Your task to perform on an android device: find photos in the google photos app Image 0: 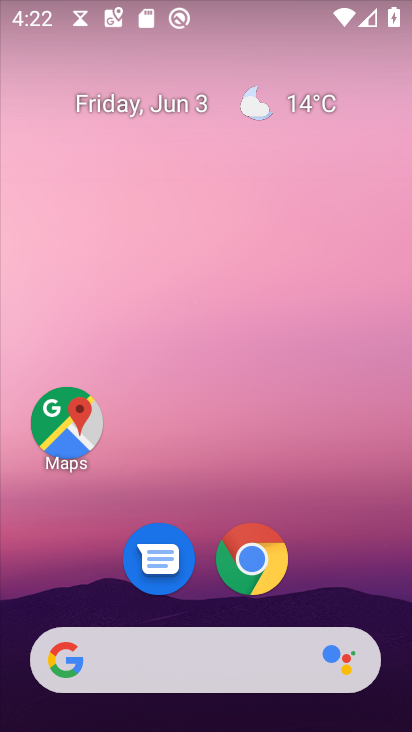
Step 0: drag from (254, 700) to (160, 11)
Your task to perform on an android device: find photos in the google photos app Image 1: 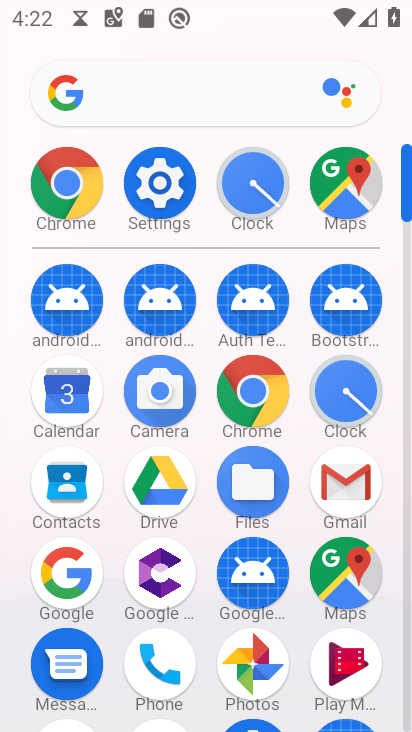
Step 1: drag from (201, 514) to (187, 68)
Your task to perform on an android device: find photos in the google photos app Image 2: 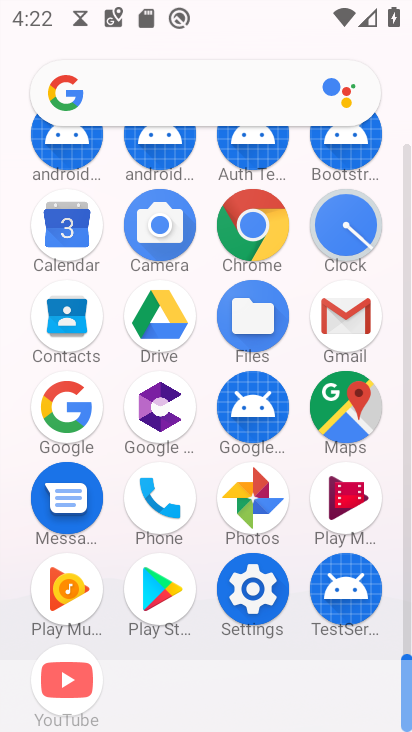
Step 2: click (192, 70)
Your task to perform on an android device: find photos in the google photos app Image 3: 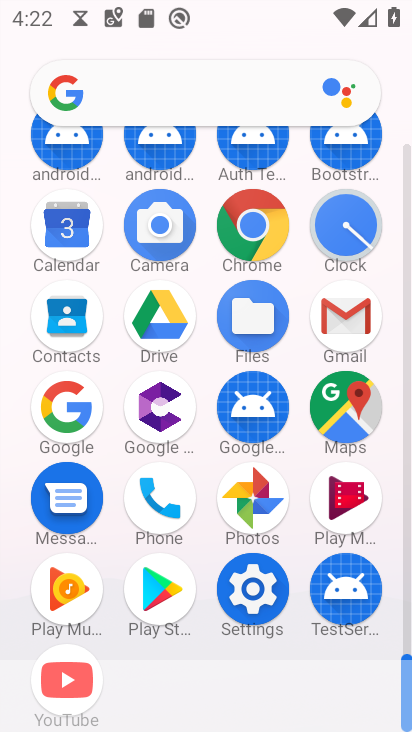
Step 3: drag from (225, 375) to (246, 247)
Your task to perform on an android device: find photos in the google photos app Image 4: 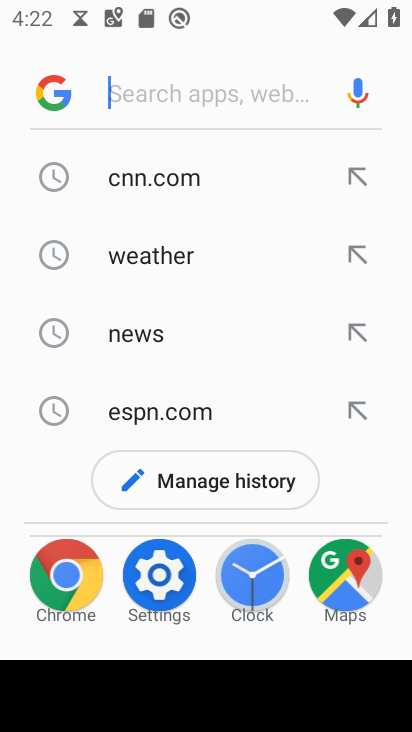
Step 4: drag from (229, 333) to (190, 221)
Your task to perform on an android device: find photos in the google photos app Image 5: 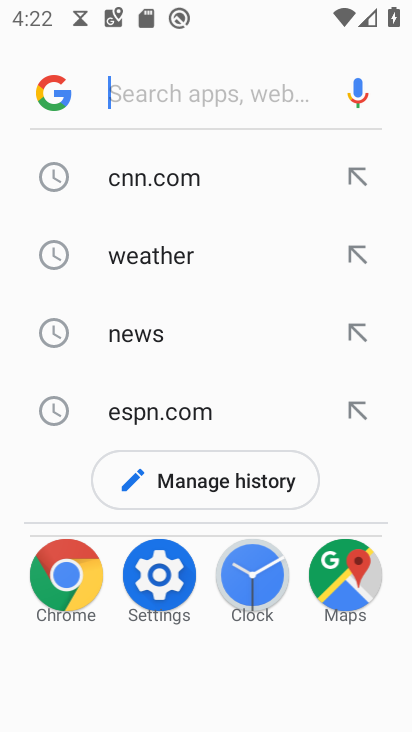
Step 5: press back button
Your task to perform on an android device: find photos in the google photos app Image 6: 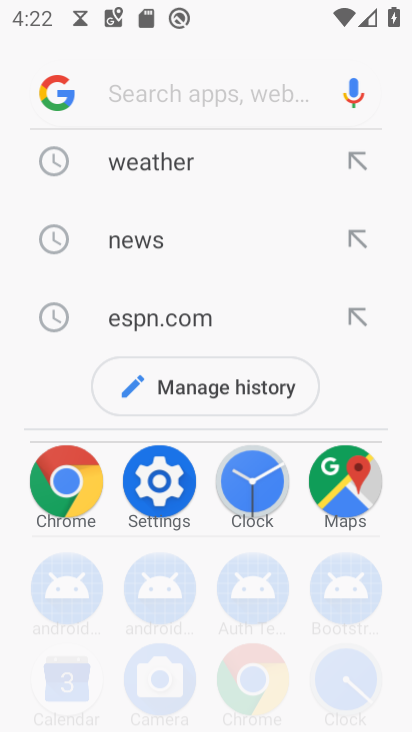
Step 6: press back button
Your task to perform on an android device: find photos in the google photos app Image 7: 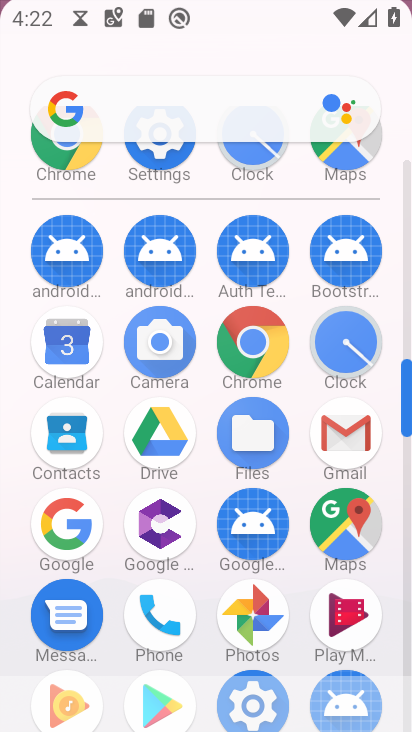
Step 7: press back button
Your task to perform on an android device: find photos in the google photos app Image 8: 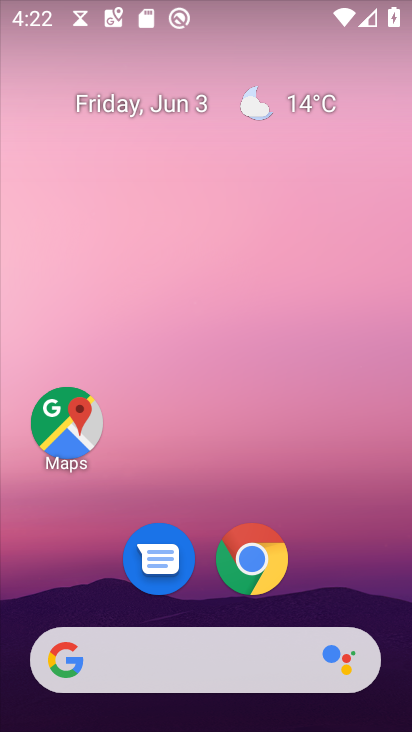
Step 8: drag from (206, 612) to (227, 26)
Your task to perform on an android device: find photos in the google photos app Image 9: 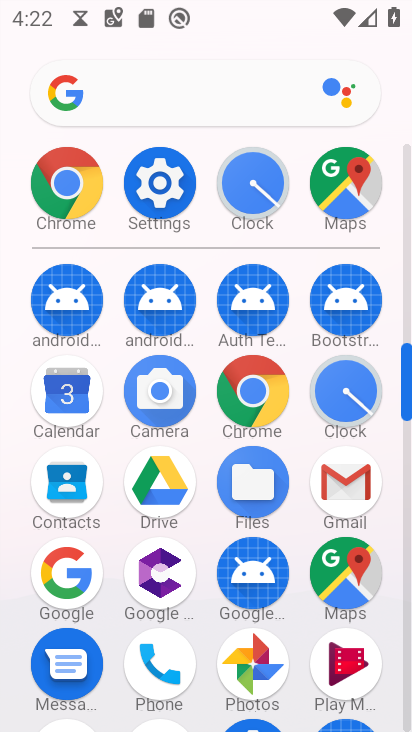
Step 9: click (247, 661)
Your task to perform on an android device: find photos in the google photos app Image 10: 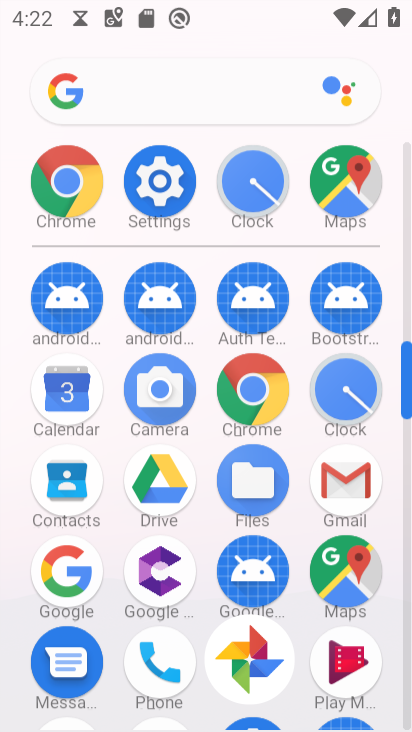
Step 10: click (246, 661)
Your task to perform on an android device: find photos in the google photos app Image 11: 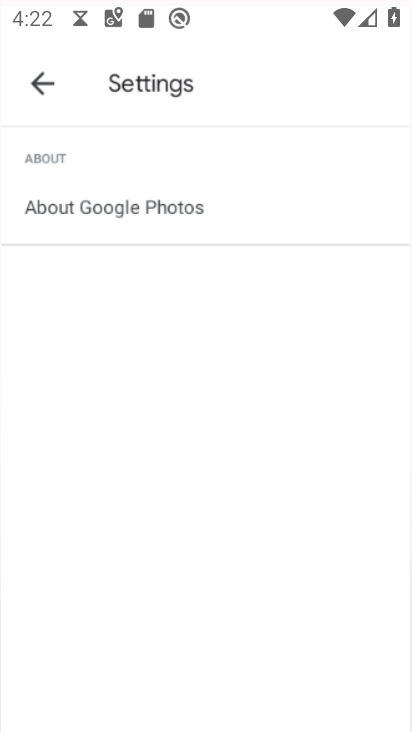
Step 11: click (240, 663)
Your task to perform on an android device: find photos in the google photos app Image 12: 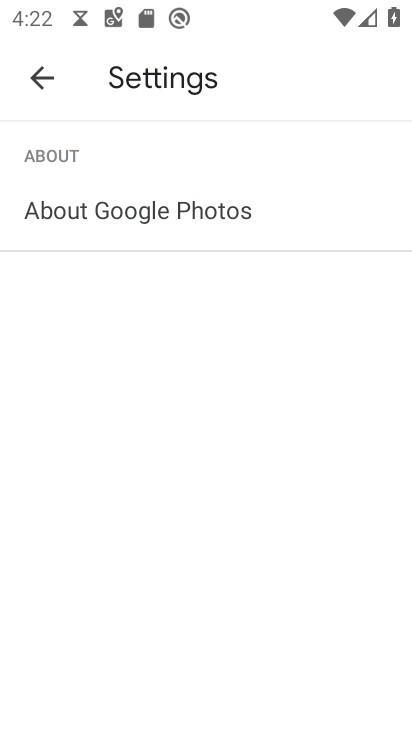
Step 12: click (236, 658)
Your task to perform on an android device: find photos in the google photos app Image 13: 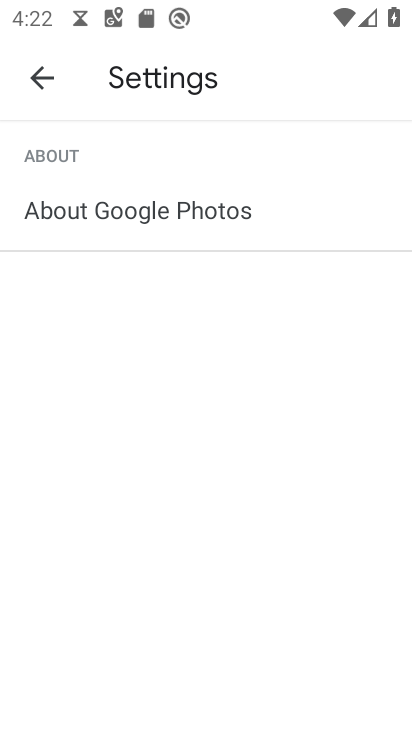
Step 13: drag from (149, 484) to (125, 45)
Your task to perform on an android device: find photos in the google photos app Image 14: 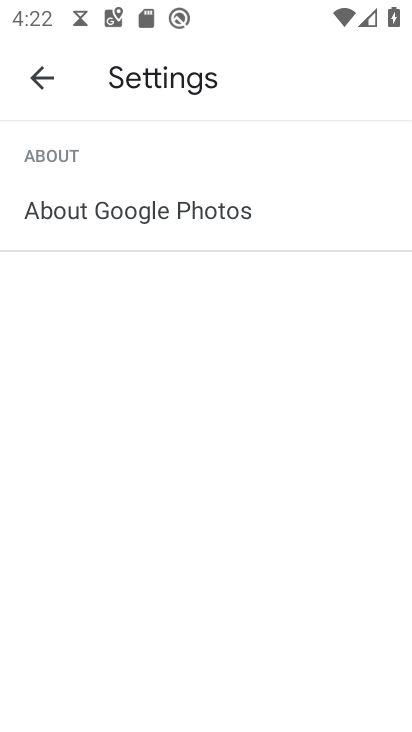
Step 14: drag from (166, 478) to (144, 87)
Your task to perform on an android device: find photos in the google photos app Image 15: 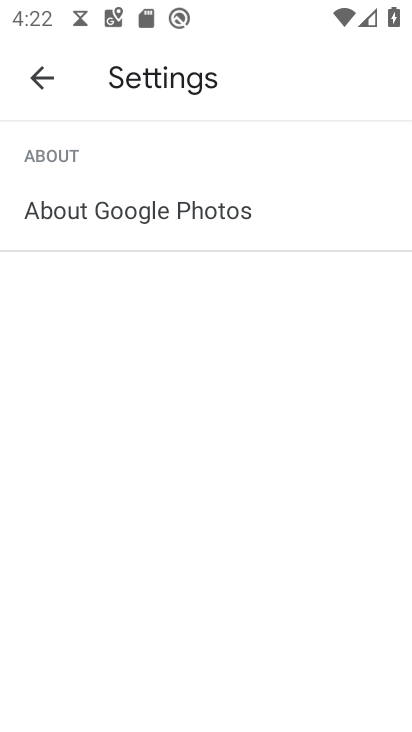
Step 15: drag from (165, 473) to (87, 199)
Your task to perform on an android device: find photos in the google photos app Image 16: 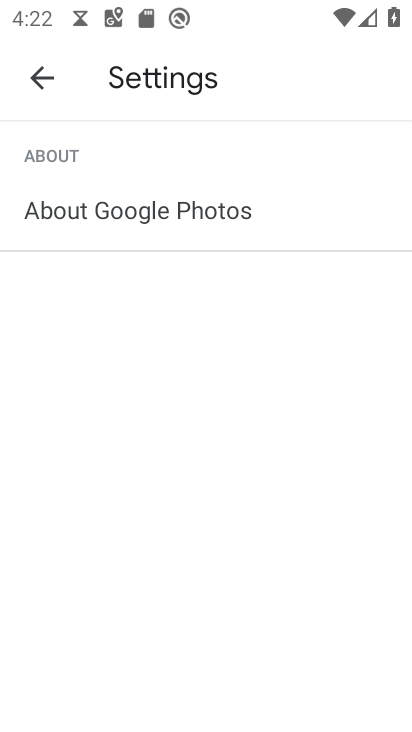
Step 16: click (34, 72)
Your task to perform on an android device: find photos in the google photos app Image 17: 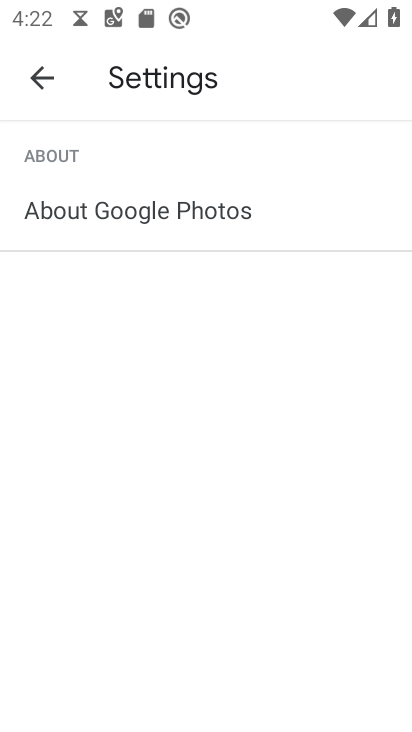
Step 17: click (34, 72)
Your task to perform on an android device: find photos in the google photos app Image 18: 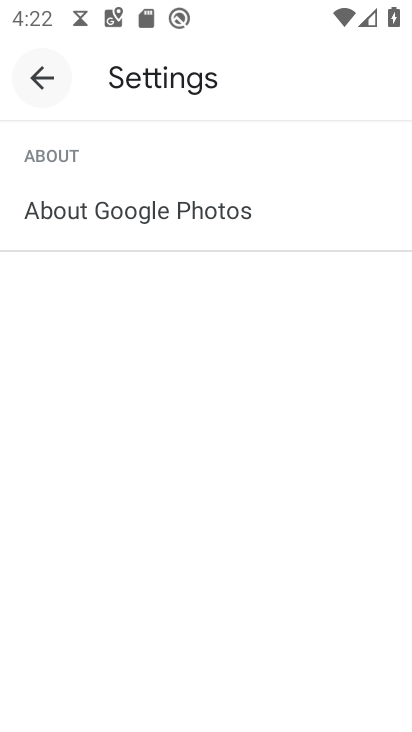
Step 18: click (34, 72)
Your task to perform on an android device: find photos in the google photos app Image 19: 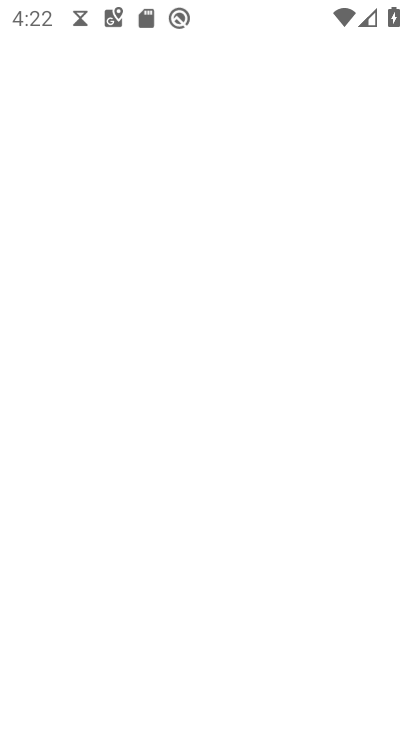
Step 19: click (34, 72)
Your task to perform on an android device: find photos in the google photos app Image 20: 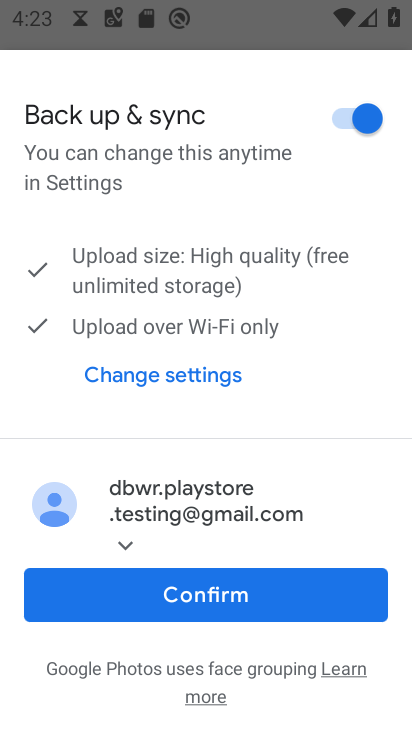
Step 20: click (188, 599)
Your task to perform on an android device: find photos in the google photos app Image 21: 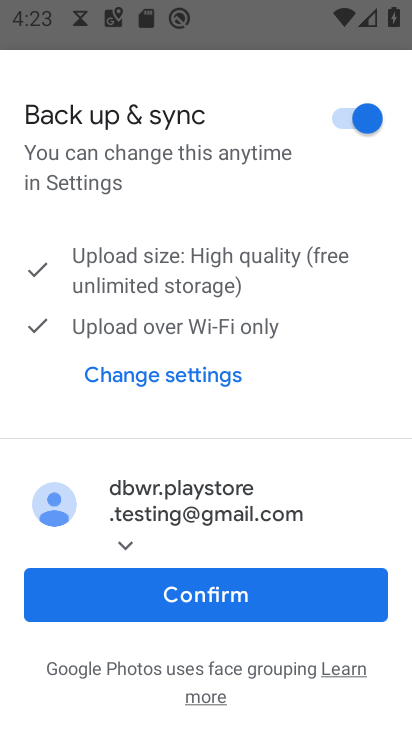
Step 21: click (188, 600)
Your task to perform on an android device: find photos in the google photos app Image 22: 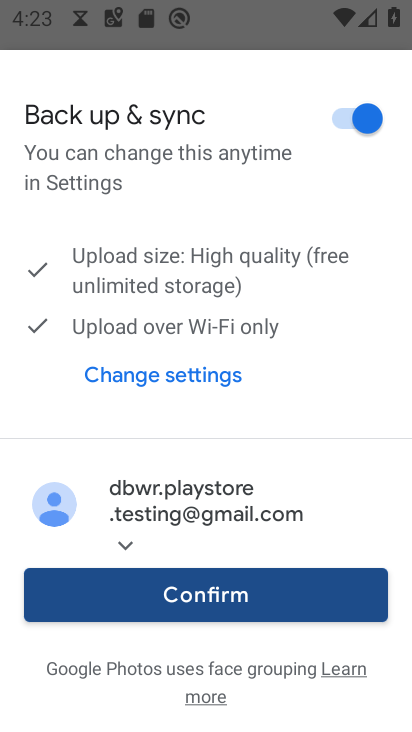
Step 22: click (188, 602)
Your task to perform on an android device: find photos in the google photos app Image 23: 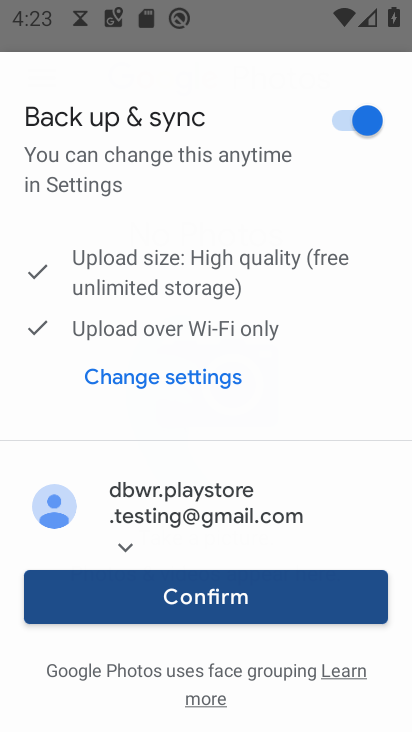
Step 23: click (188, 602)
Your task to perform on an android device: find photos in the google photos app Image 24: 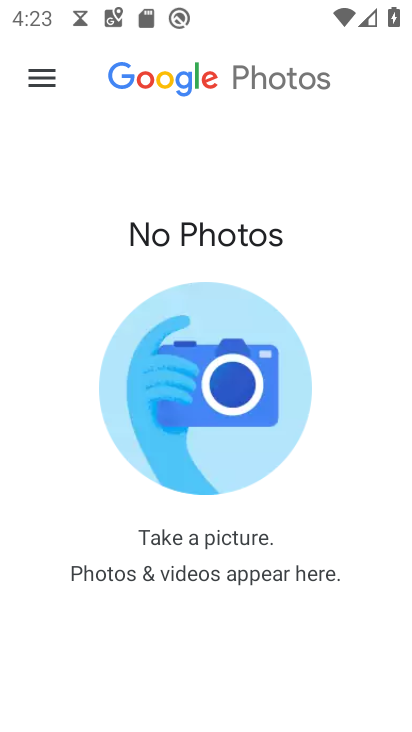
Step 24: click (188, 593)
Your task to perform on an android device: find photos in the google photos app Image 25: 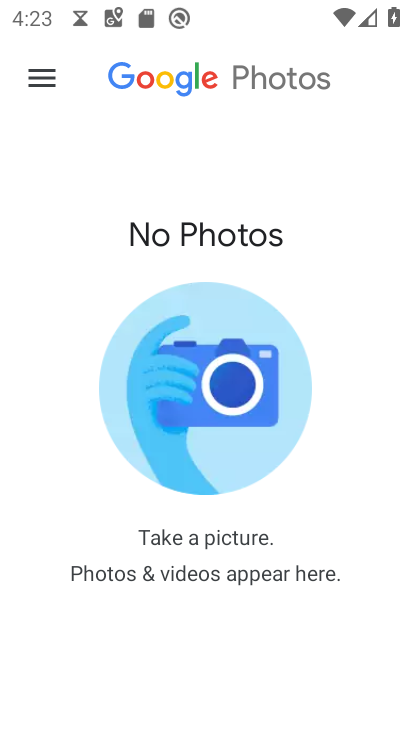
Step 25: task complete